Your task to perform on an android device: Go to calendar. Show me events next week Image 0: 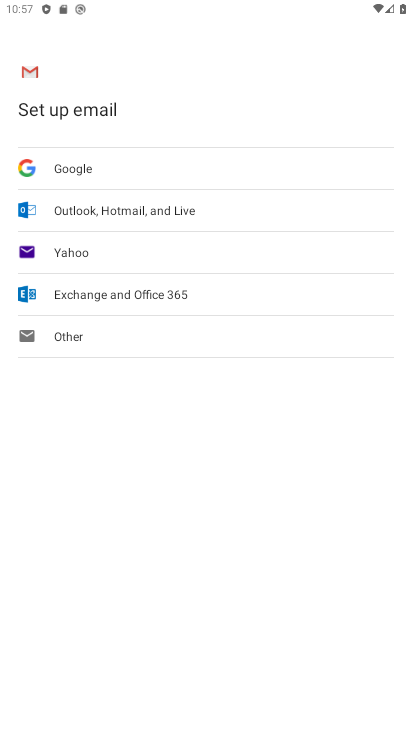
Step 0: press home button
Your task to perform on an android device: Go to calendar. Show me events next week Image 1: 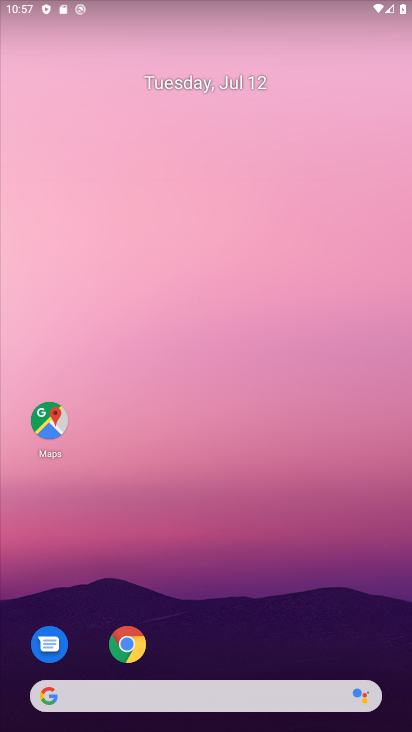
Step 1: drag from (212, 707) to (348, 244)
Your task to perform on an android device: Go to calendar. Show me events next week Image 2: 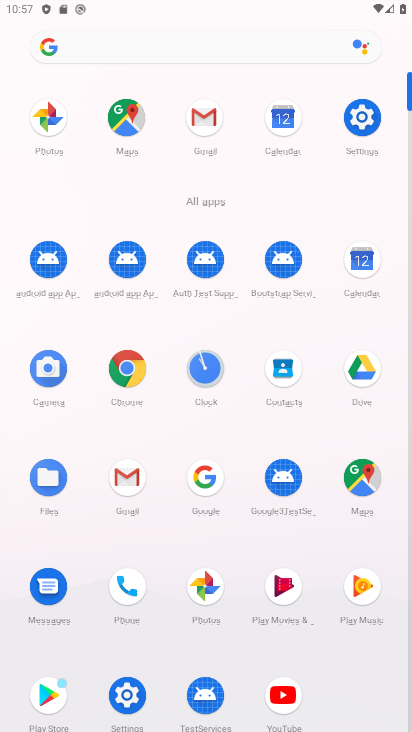
Step 2: click (373, 264)
Your task to perform on an android device: Go to calendar. Show me events next week Image 3: 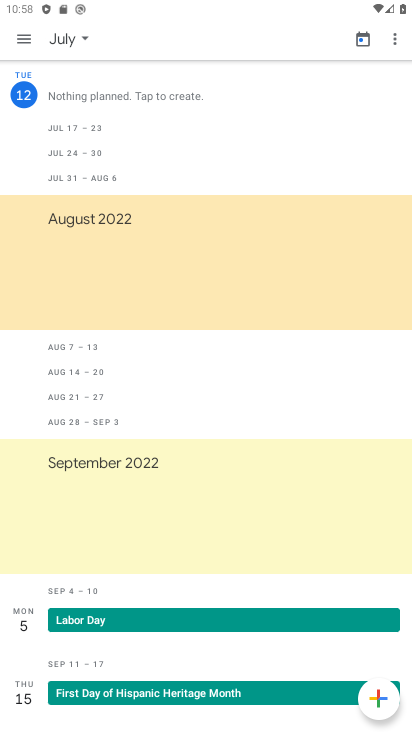
Step 3: click (11, 40)
Your task to perform on an android device: Go to calendar. Show me events next week Image 4: 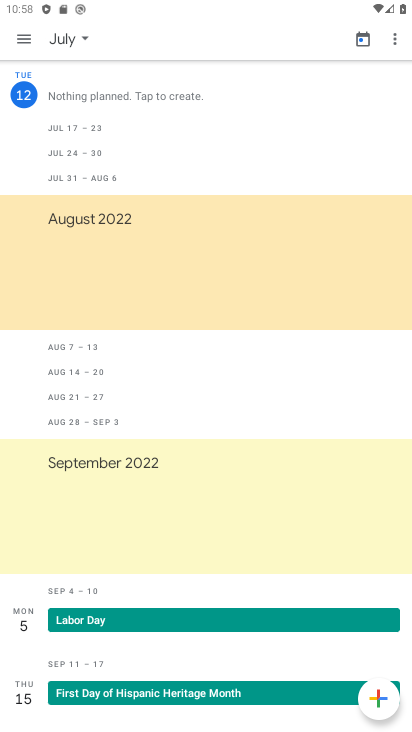
Step 4: click (19, 40)
Your task to perform on an android device: Go to calendar. Show me events next week Image 5: 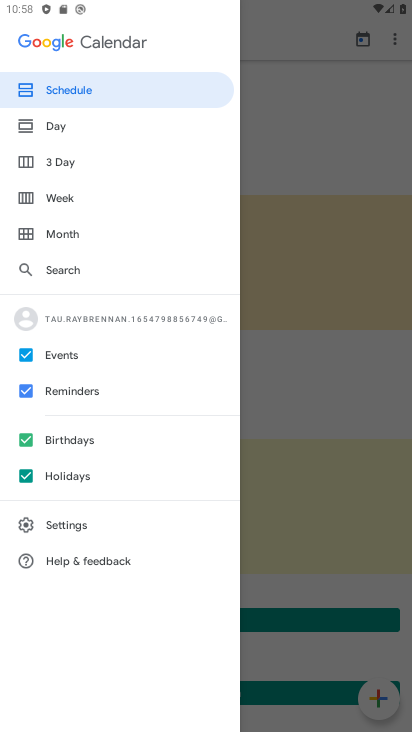
Step 5: click (83, 234)
Your task to perform on an android device: Go to calendar. Show me events next week Image 6: 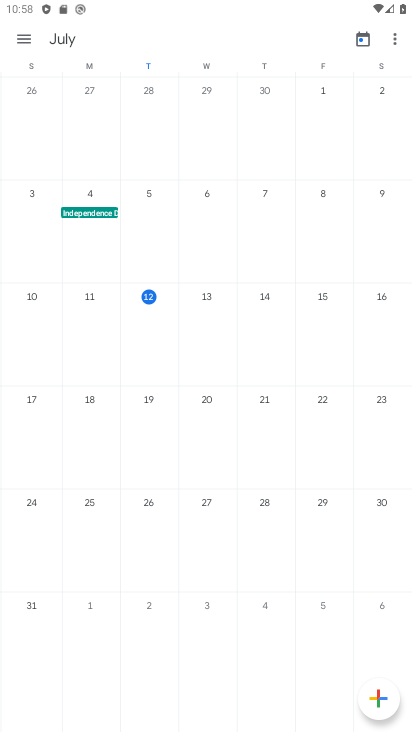
Step 6: click (85, 397)
Your task to perform on an android device: Go to calendar. Show me events next week Image 7: 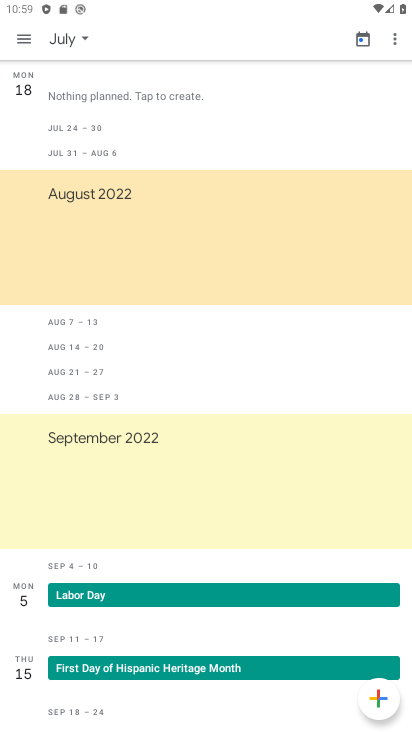
Step 7: task complete